Your task to perform on an android device: Go to Yahoo.com Image 0: 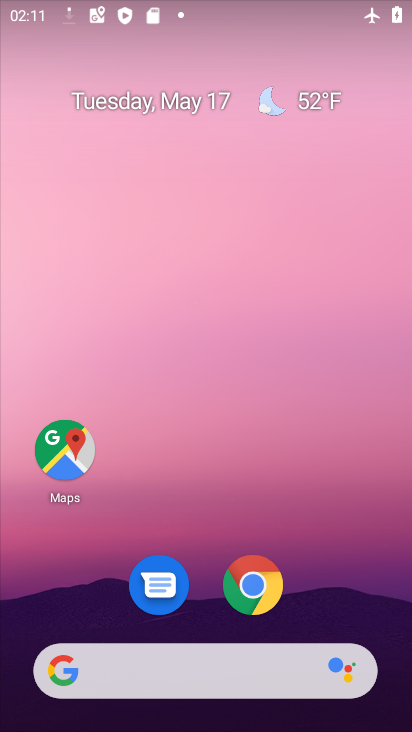
Step 0: click (224, 675)
Your task to perform on an android device: Go to Yahoo.com Image 1: 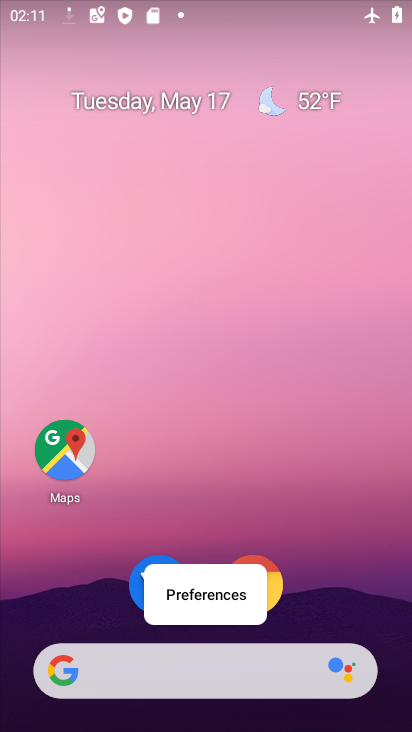
Step 1: click (224, 675)
Your task to perform on an android device: Go to Yahoo.com Image 2: 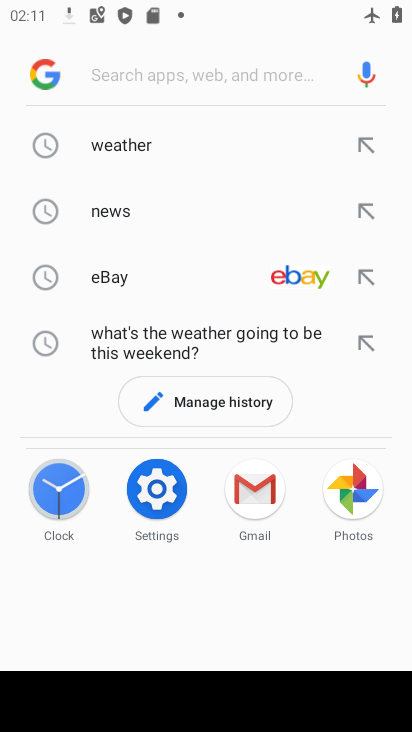
Step 2: type "yahoo.com"
Your task to perform on an android device: Go to Yahoo.com Image 3: 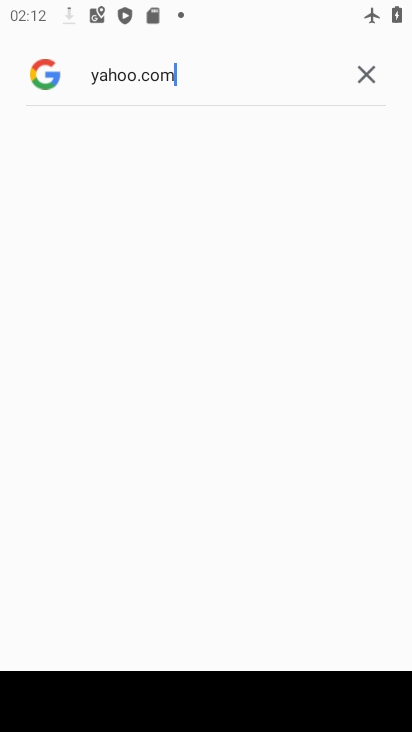
Step 3: task complete